Your task to perform on an android device: Open Maps and search for coffee Image 0: 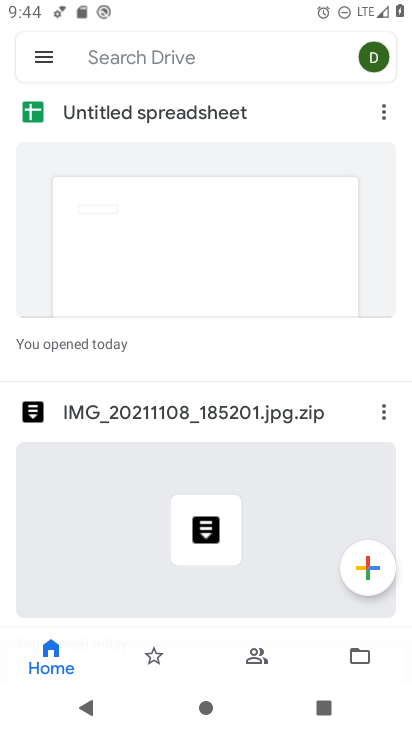
Step 0: press home button
Your task to perform on an android device: Open Maps and search for coffee Image 1: 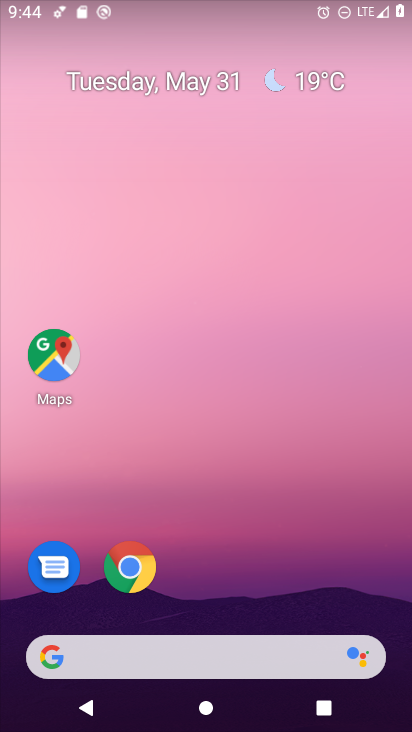
Step 1: click (42, 347)
Your task to perform on an android device: Open Maps and search for coffee Image 2: 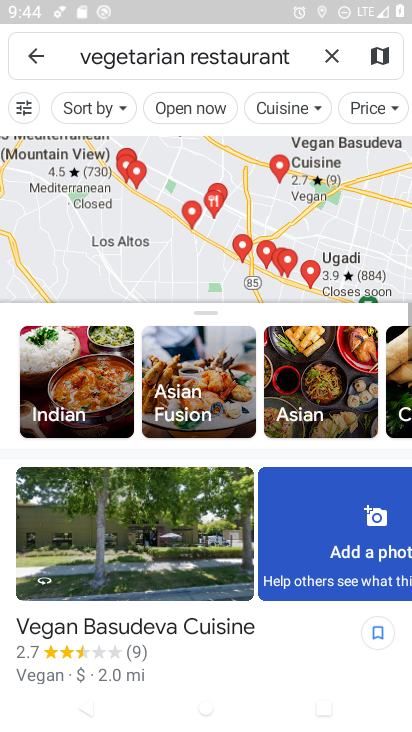
Step 2: click (330, 56)
Your task to perform on an android device: Open Maps and search for coffee Image 3: 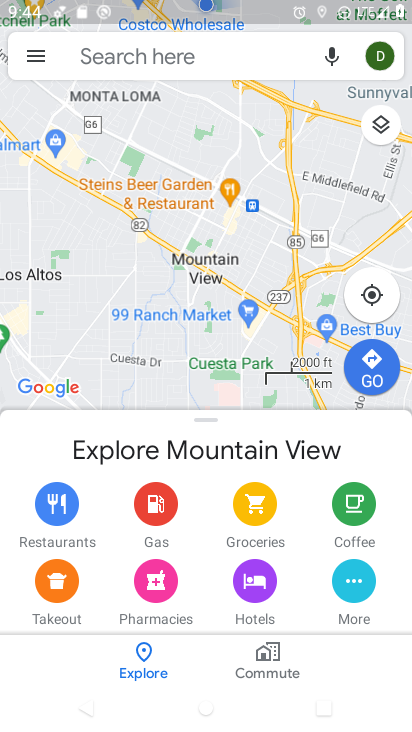
Step 3: click (190, 62)
Your task to perform on an android device: Open Maps and search for coffee Image 4: 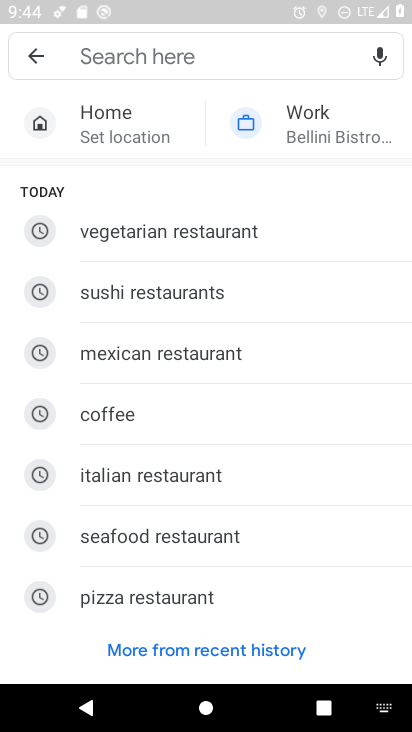
Step 4: click (101, 406)
Your task to perform on an android device: Open Maps and search for coffee Image 5: 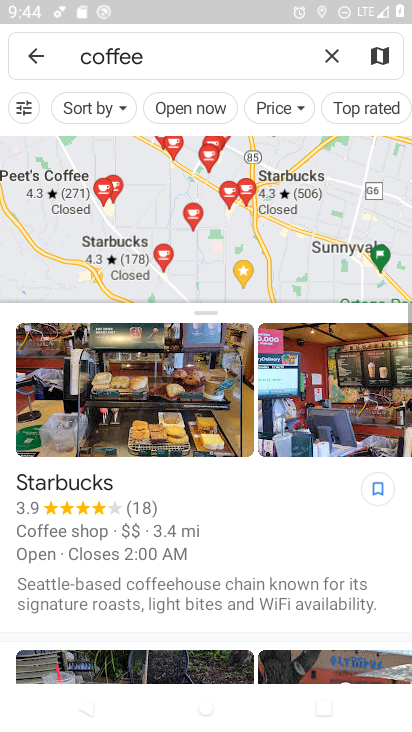
Step 5: task complete